Your task to perform on an android device: Open ESPN.com Image 0: 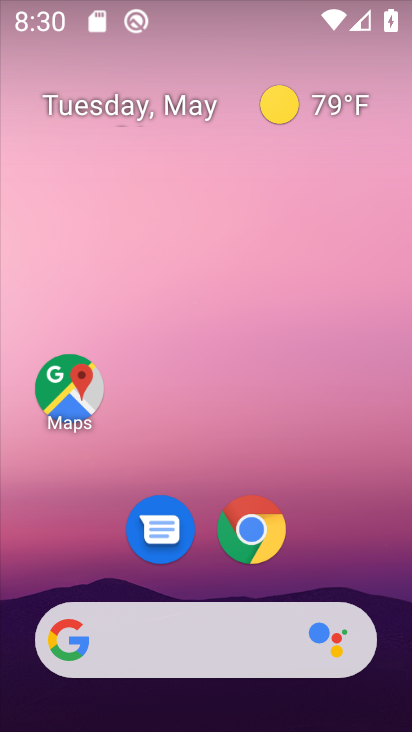
Step 0: click (262, 532)
Your task to perform on an android device: Open ESPN.com Image 1: 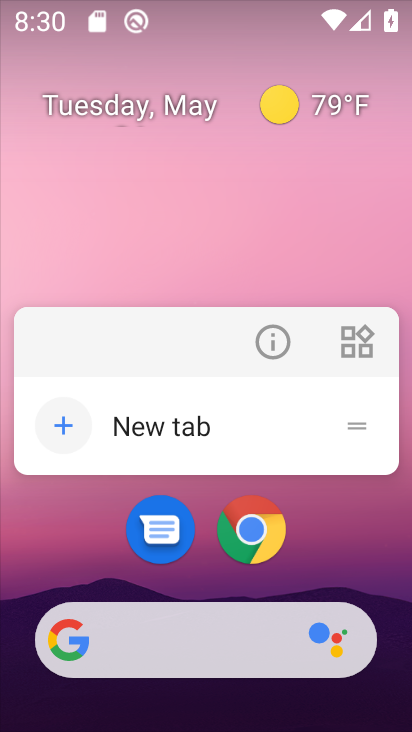
Step 1: click (262, 532)
Your task to perform on an android device: Open ESPN.com Image 2: 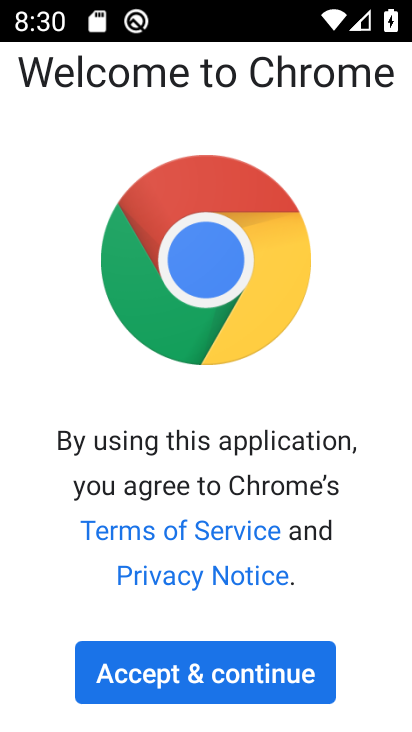
Step 2: click (235, 669)
Your task to perform on an android device: Open ESPN.com Image 3: 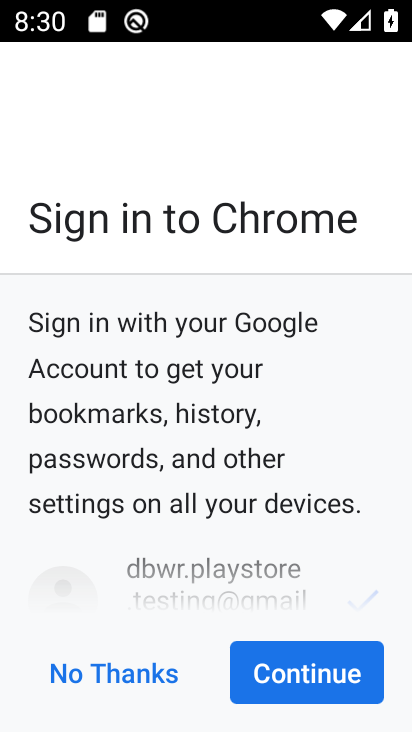
Step 3: click (292, 668)
Your task to perform on an android device: Open ESPN.com Image 4: 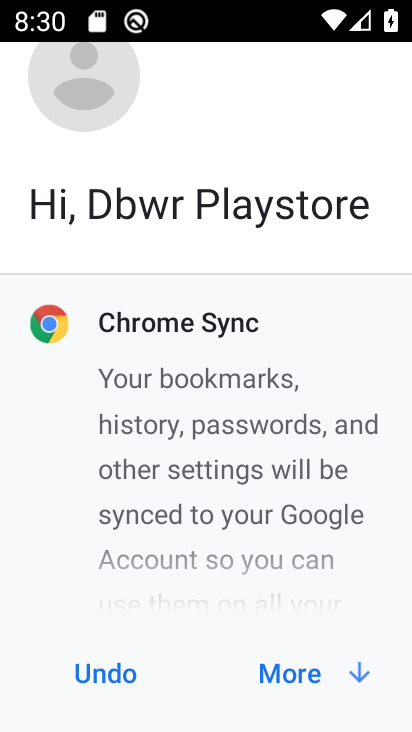
Step 4: click (290, 662)
Your task to perform on an android device: Open ESPN.com Image 5: 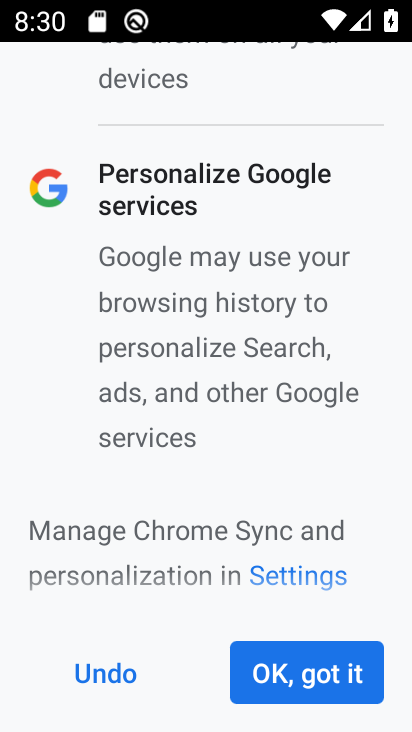
Step 5: click (290, 653)
Your task to perform on an android device: Open ESPN.com Image 6: 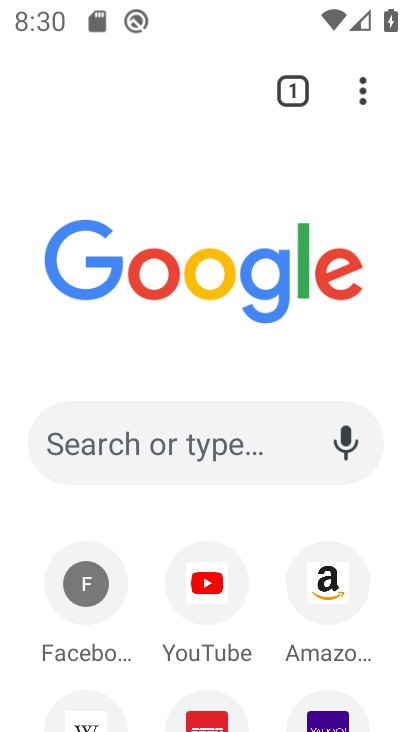
Step 6: drag from (292, 504) to (316, 343)
Your task to perform on an android device: Open ESPN.com Image 7: 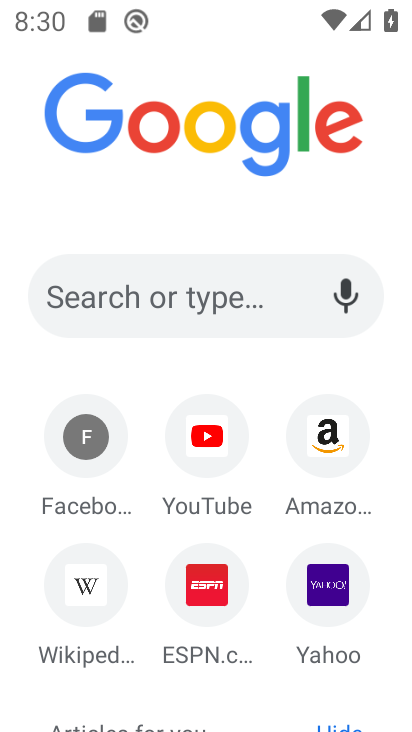
Step 7: click (201, 598)
Your task to perform on an android device: Open ESPN.com Image 8: 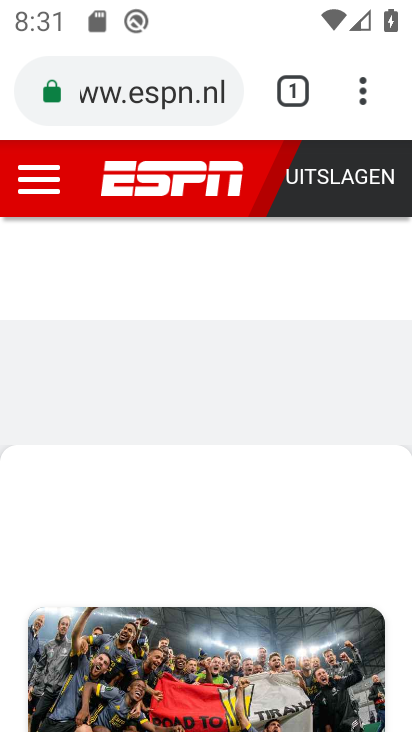
Step 8: task complete